Your task to perform on an android device: turn off airplane mode Image 0: 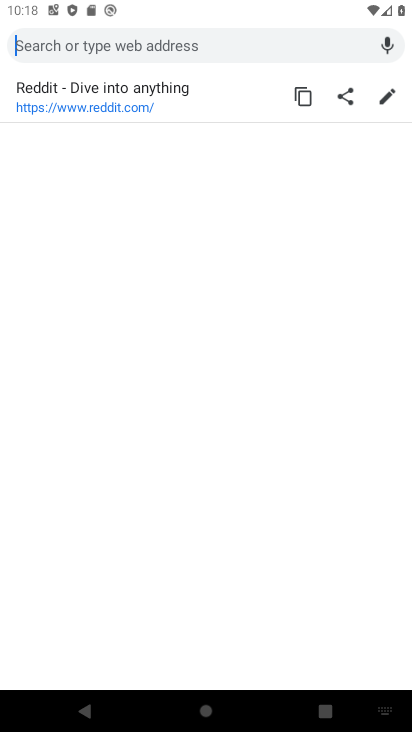
Step 0: press home button
Your task to perform on an android device: turn off airplane mode Image 1: 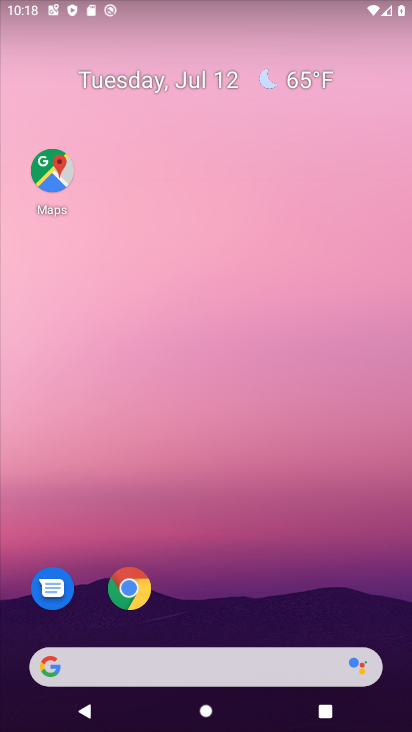
Step 1: drag from (56, 713) to (137, 153)
Your task to perform on an android device: turn off airplane mode Image 2: 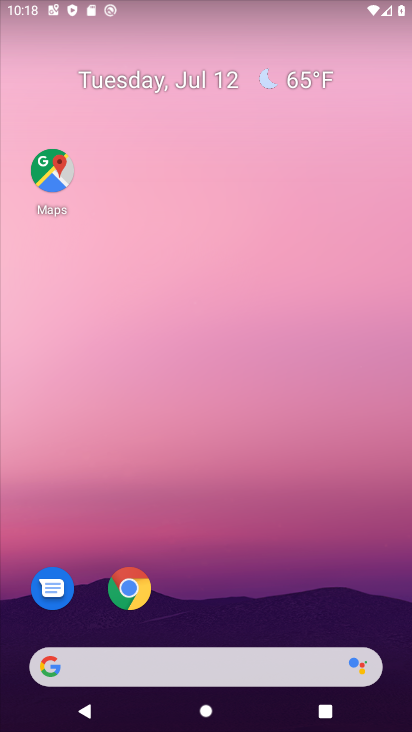
Step 2: drag from (31, 702) to (131, 23)
Your task to perform on an android device: turn off airplane mode Image 3: 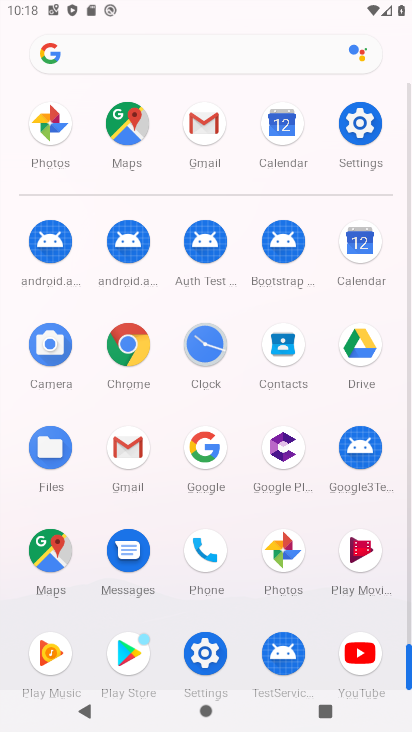
Step 3: click (199, 660)
Your task to perform on an android device: turn off airplane mode Image 4: 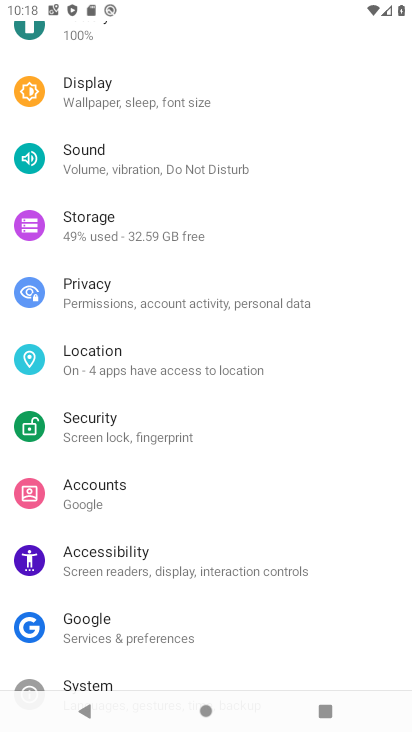
Step 4: drag from (197, 49) to (210, 713)
Your task to perform on an android device: turn off airplane mode Image 5: 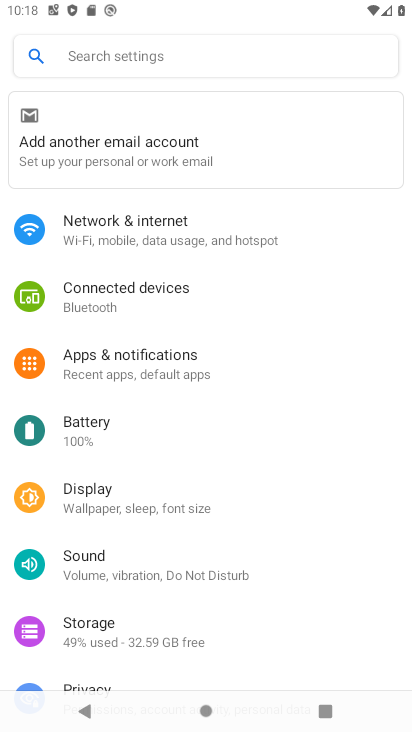
Step 5: click (134, 225)
Your task to perform on an android device: turn off airplane mode Image 6: 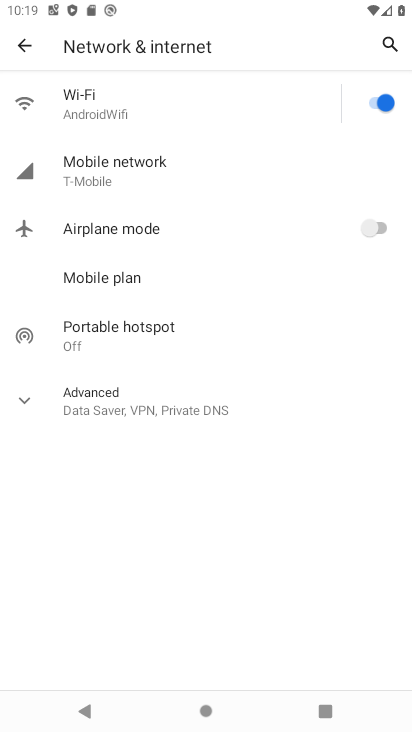
Step 6: task complete